Your task to perform on an android device: What's the weather going to be tomorrow? Image 0: 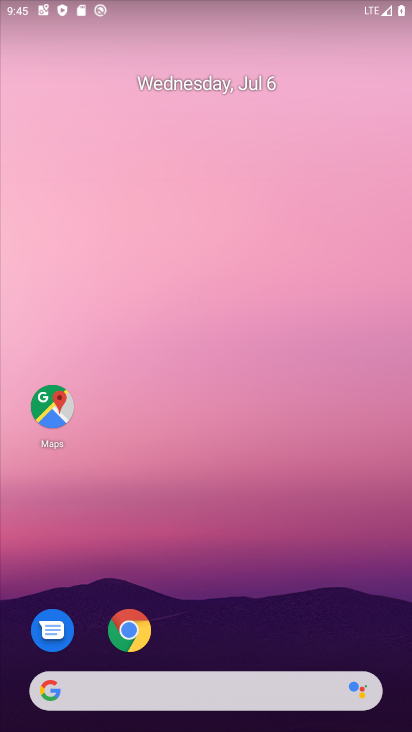
Step 0: click (234, 675)
Your task to perform on an android device: What's the weather going to be tomorrow? Image 1: 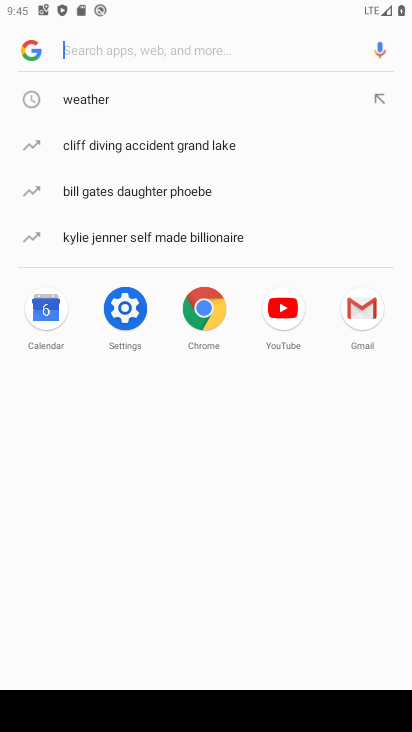
Step 1: click (88, 96)
Your task to perform on an android device: What's the weather going to be tomorrow? Image 2: 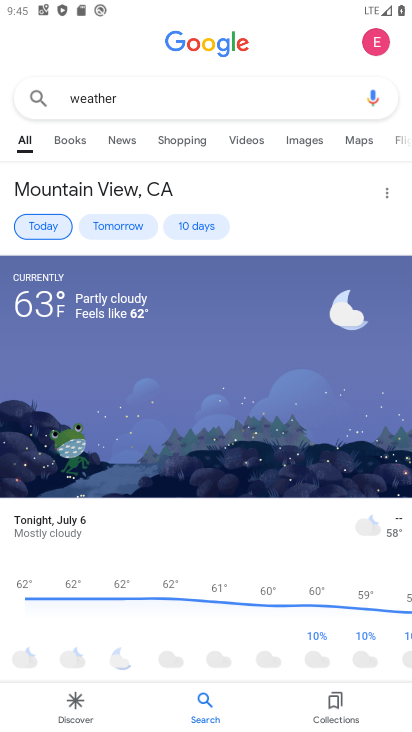
Step 2: click (113, 225)
Your task to perform on an android device: What's the weather going to be tomorrow? Image 3: 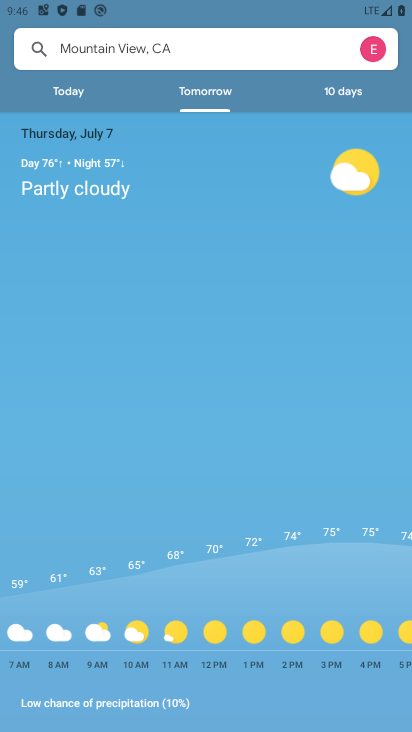
Step 3: task complete